Your task to perform on an android device: Check the news Image 0: 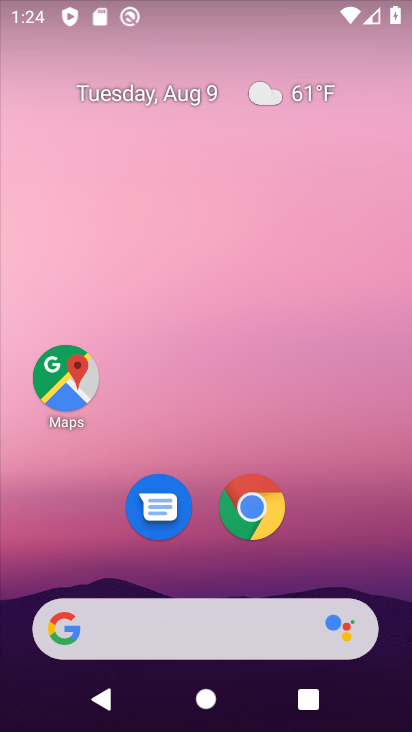
Step 0: click (174, 641)
Your task to perform on an android device: Check the news Image 1: 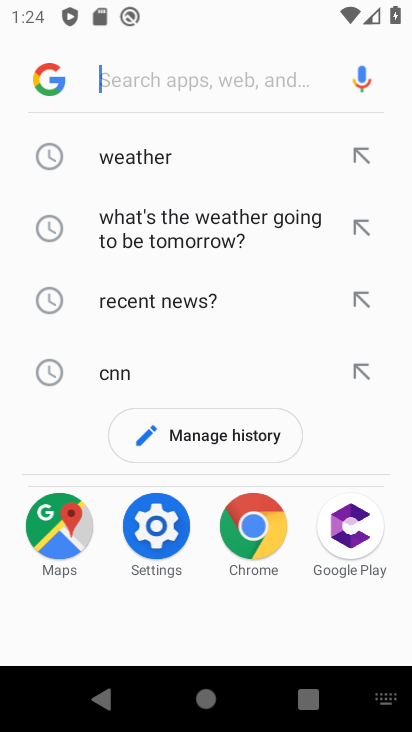
Step 1: click (229, 83)
Your task to perform on an android device: Check the news Image 2: 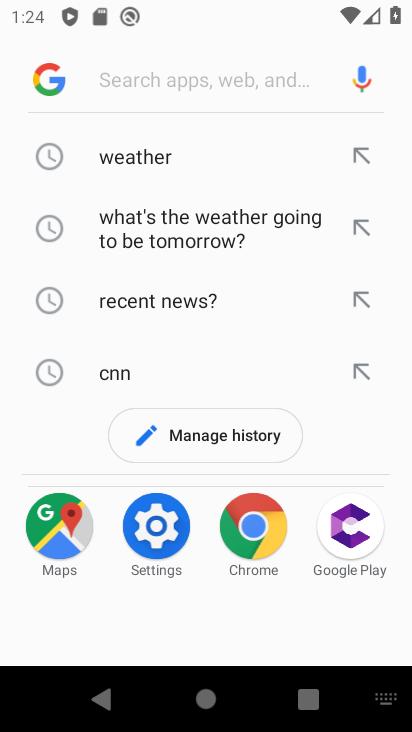
Step 2: type "news"
Your task to perform on an android device: Check the news Image 3: 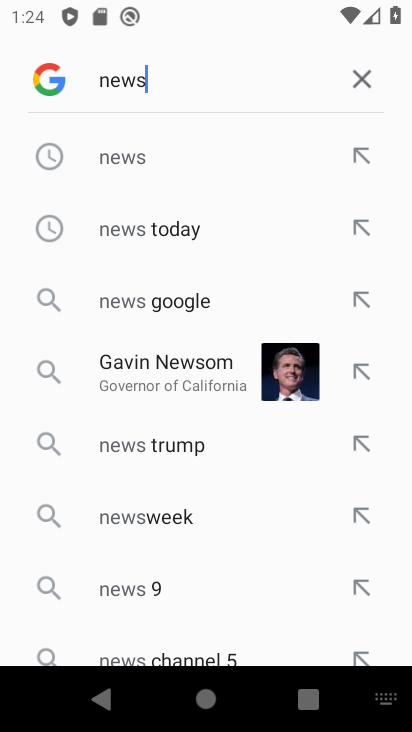
Step 3: click (146, 159)
Your task to perform on an android device: Check the news Image 4: 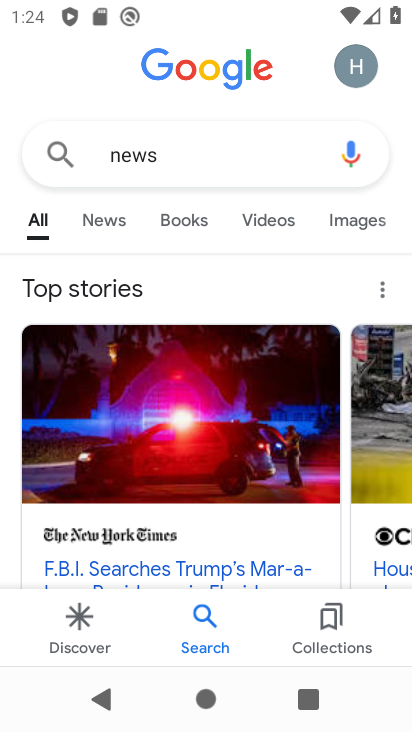
Step 4: task complete